Your task to perform on an android device: choose inbox layout in the gmail app Image 0: 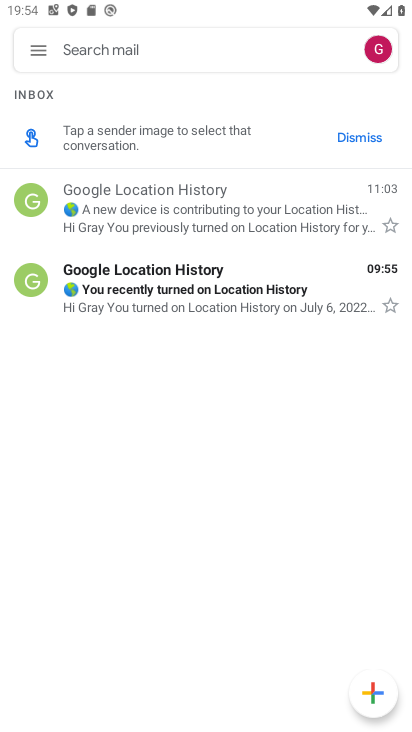
Step 0: click (30, 43)
Your task to perform on an android device: choose inbox layout in the gmail app Image 1: 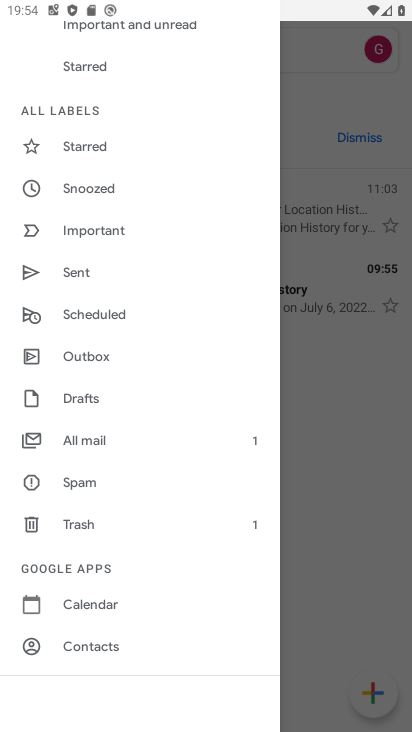
Step 1: drag from (90, 605) to (70, 332)
Your task to perform on an android device: choose inbox layout in the gmail app Image 2: 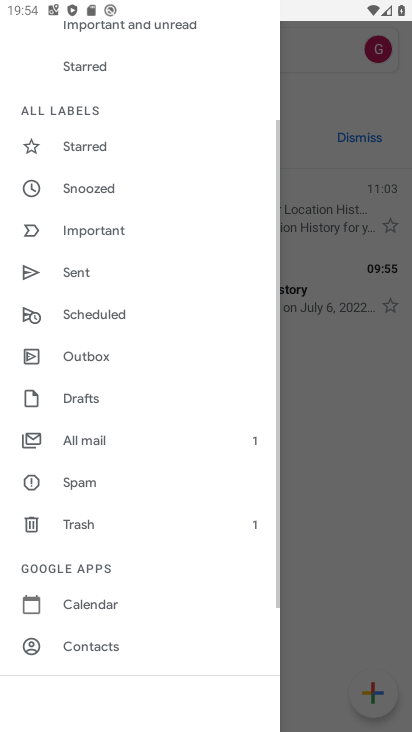
Step 2: drag from (97, 651) to (176, 143)
Your task to perform on an android device: choose inbox layout in the gmail app Image 3: 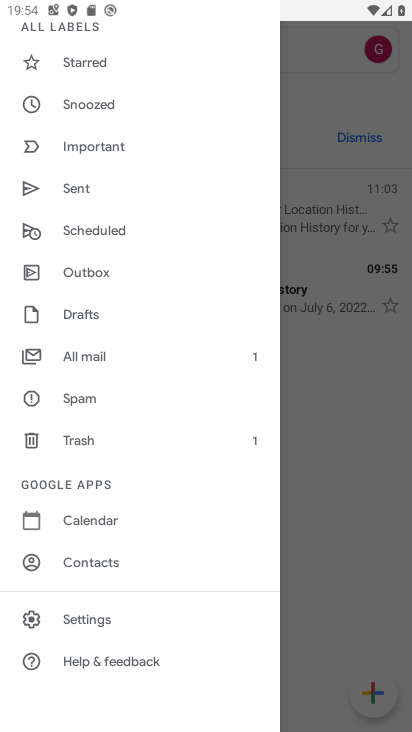
Step 3: click (126, 615)
Your task to perform on an android device: choose inbox layout in the gmail app Image 4: 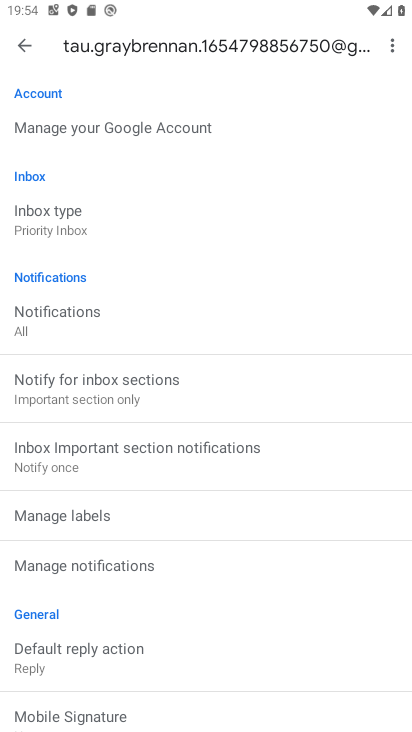
Step 4: click (75, 219)
Your task to perform on an android device: choose inbox layout in the gmail app Image 5: 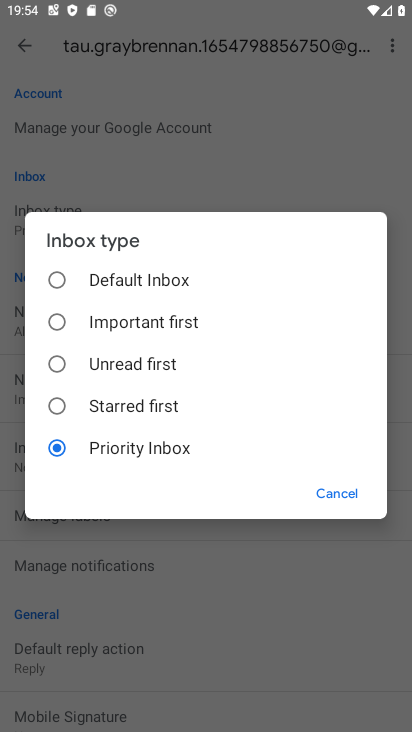
Step 5: click (97, 284)
Your task to perform on an android device: choose inbox layout in the gmail app Image 6: 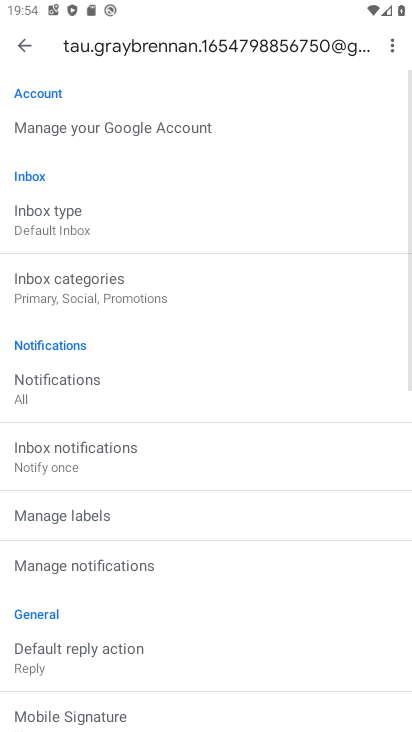
Step 6: task complete